Your task to perform on an android device: Open Reddit.com Image 0: 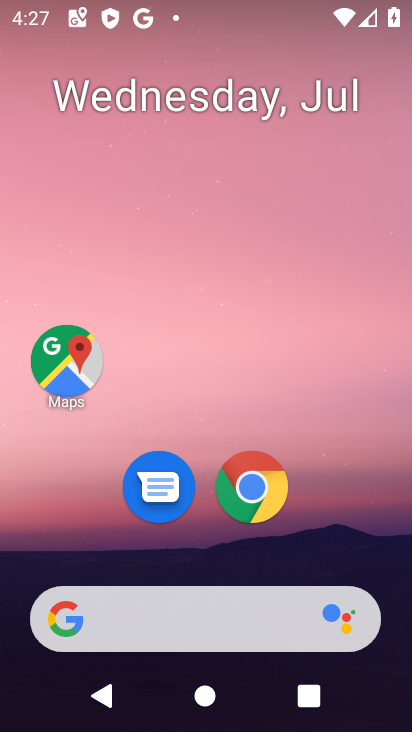
Step 0: click (251, 492)
Your task to perform on an android device: Open Reddit.com Image 1: 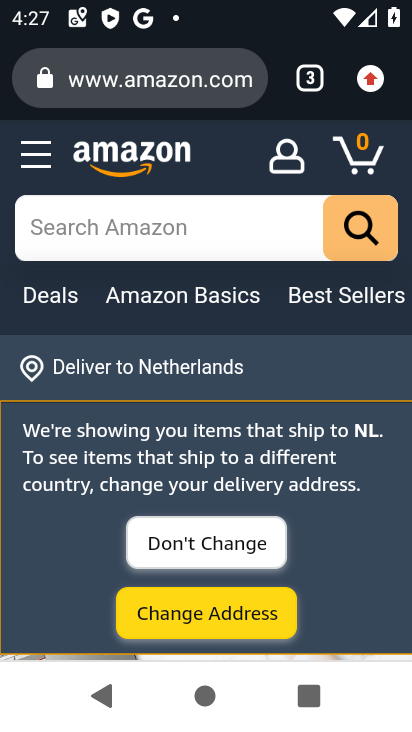
Step 1: click (293, 79)
Your task to perform on an android device: Open Reddit.com Image 2: 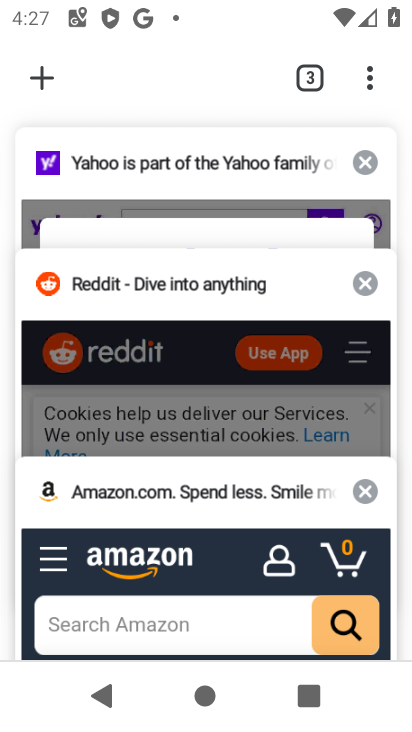
Step 2: click (144, 316)
Your task to perform on an android device: Open Reddit.com Image 3: 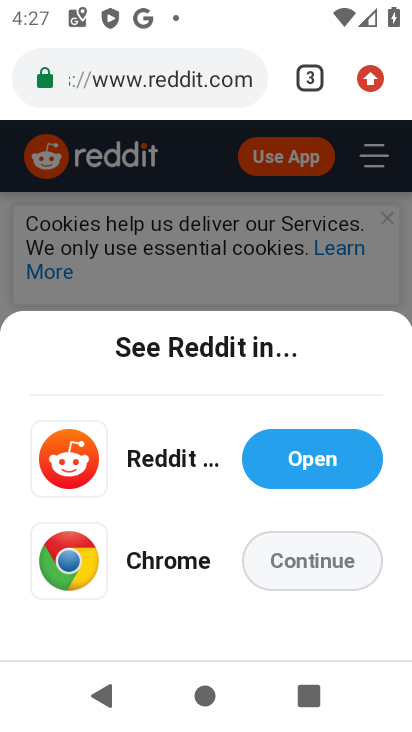
Step 3: task complete